Your task to perform on an android device: turn off improve location accuracy Image 0: 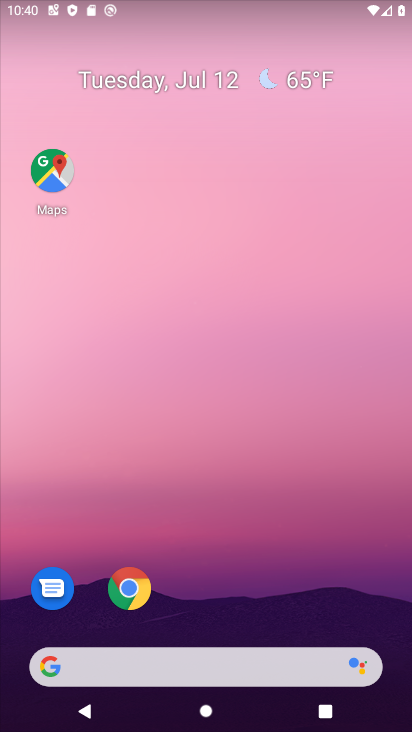
Step 0: drag from (94, 477) to (247, 13)
Your task to perform on an android device: turn off improve location accuracy Image 1: 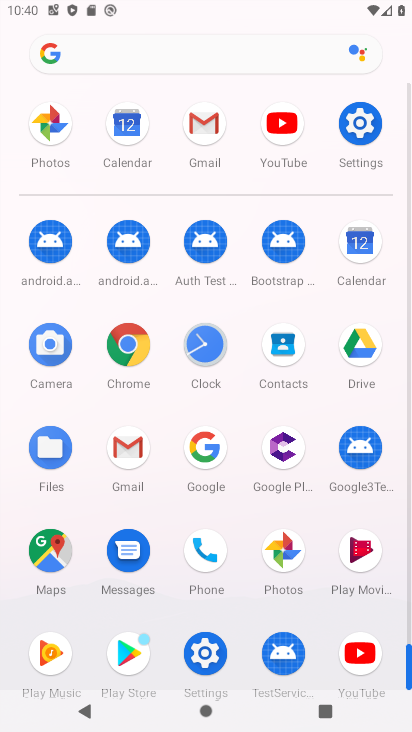
Step 1: click (204, 665)
Your task to perform on an android device: turn off improve location accuracy Image 2: 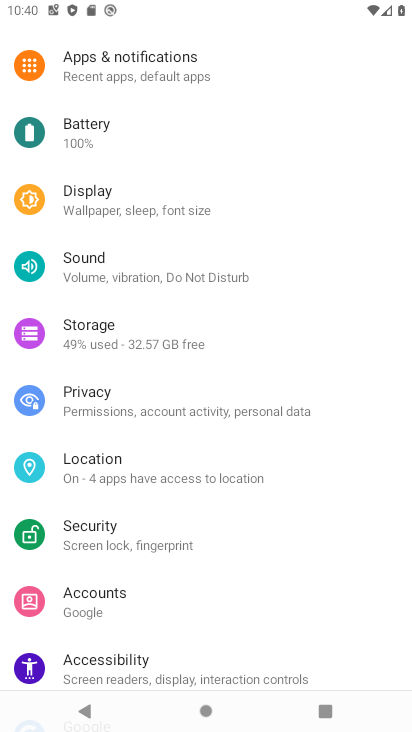
Step 2: click (80, 471)
Your task to perform on an android device: turn off improve location accuracy Image 3: 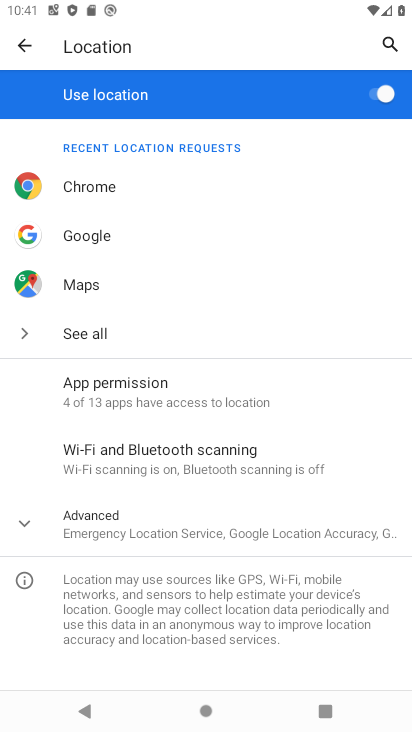
Step 3: click (119, 528)
Your task to perform on an android device: turn off improve location accuracy Image 4: 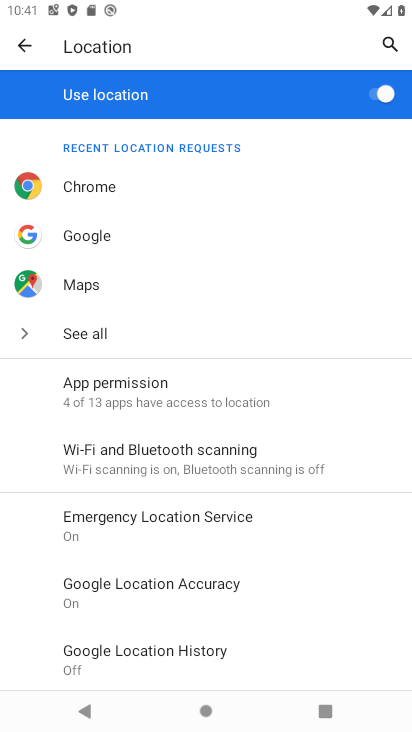
Step 4: drag from (338, 630) to (354, 141)
Your task to perform on an android device: turn off improve location accuracy Image 5: 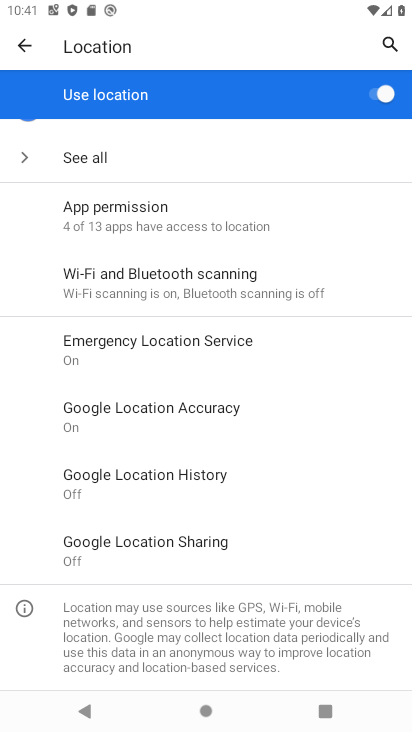
Step 5: click (121, 433)
Your task to perform on an android device: turn off improve location accuracy Image 6: 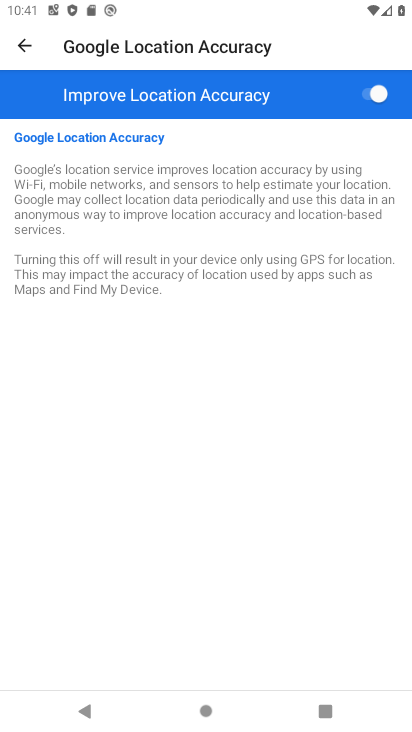
Step 6: click (384, 93)
Your task to perform on an android device: turn off improve location accuracy Image 7: 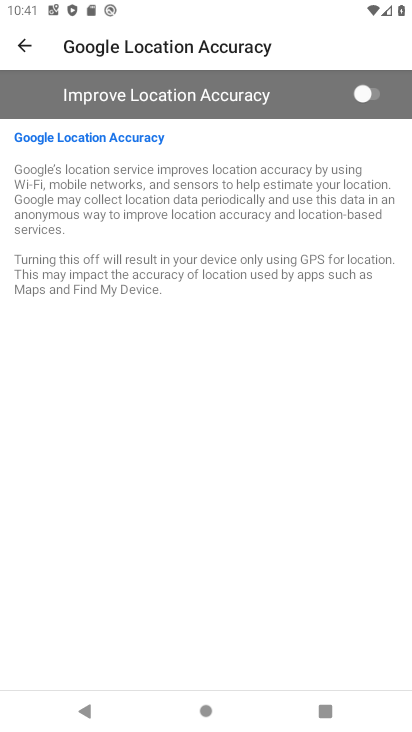
Step 7: task complete